Your task to perform on an android device: Open Google Chrome and open the bookmarks view Image 0: 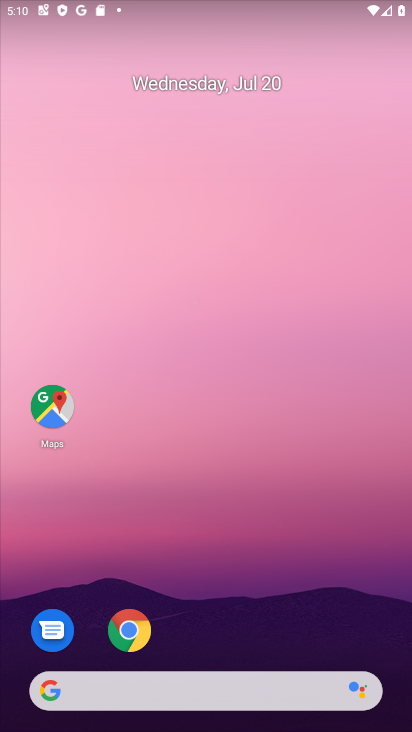
Step 0: click (130, 630)
Your task to perform on an android device: Open Google Chrome and open the bookmarks view Image 1: 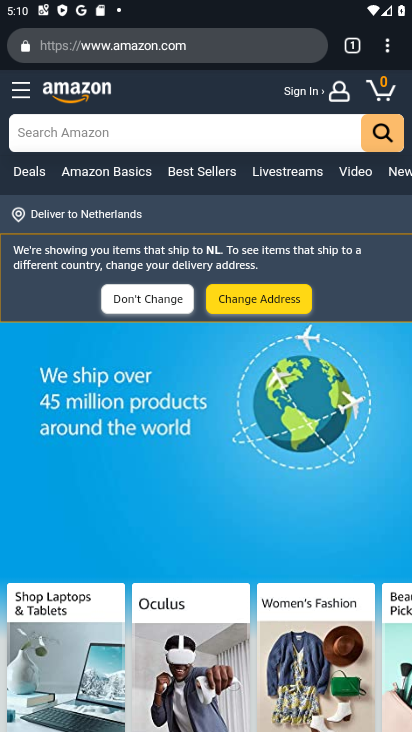
Step 1: click (390, 48)
Your task to perform on an android device: Open Google Chrome and open the bookmarks view Image 2: 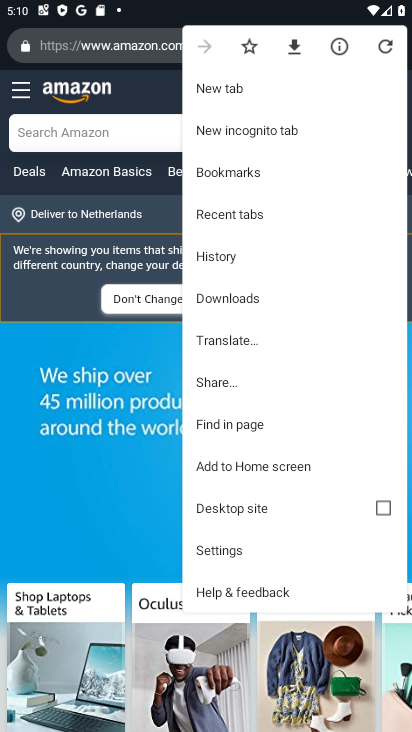
Step 2: click (240, 173)
Your task to perform on an android device: Open Google Chrome and open the bookmarks view Image 3: 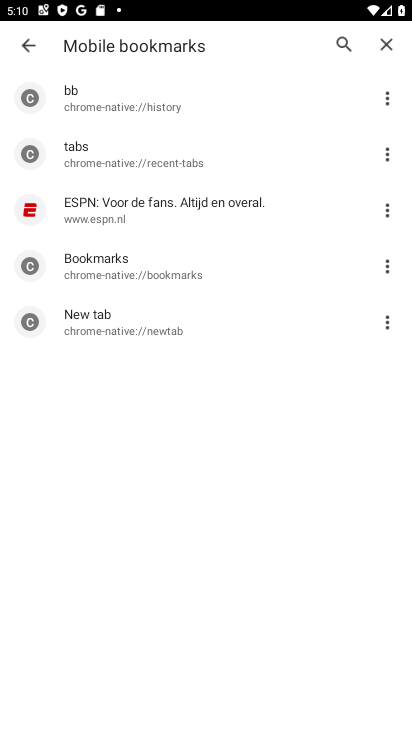
Step 3: task complete